Your task to perform on an android device: toggle notifications settings in the gmail app Image 0: 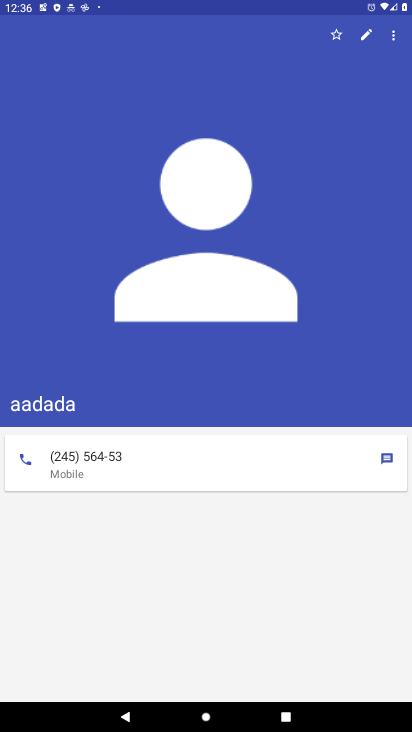
Step 0: press home button
Your task to perform on an android device: toggle notifications settings in the gmail app Image 1: 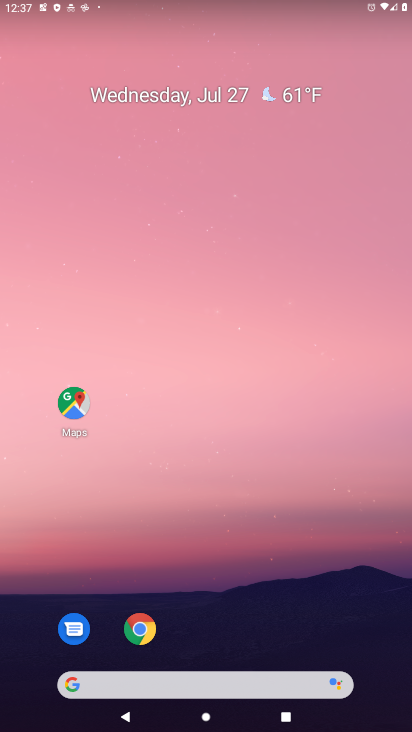
Step 1: drag from (206, 621) to (214, 212)
Your task to perform on an android device: toggle notifications settings in the gmail app Image 2: 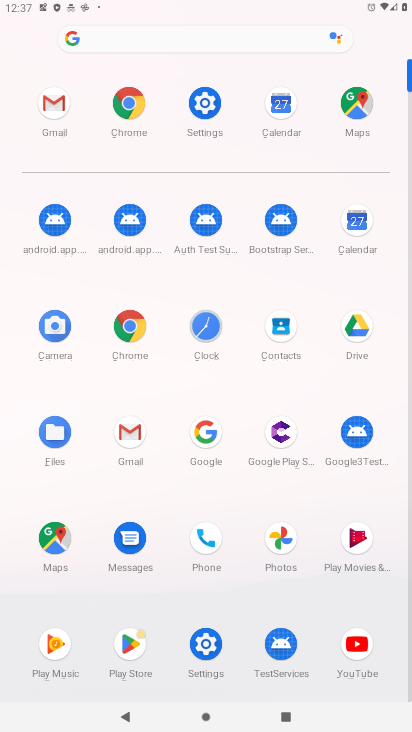
Step 2: click (52, 110)
Your task to perform on an android device: toggle notifications settings in the gmail app Image 3: 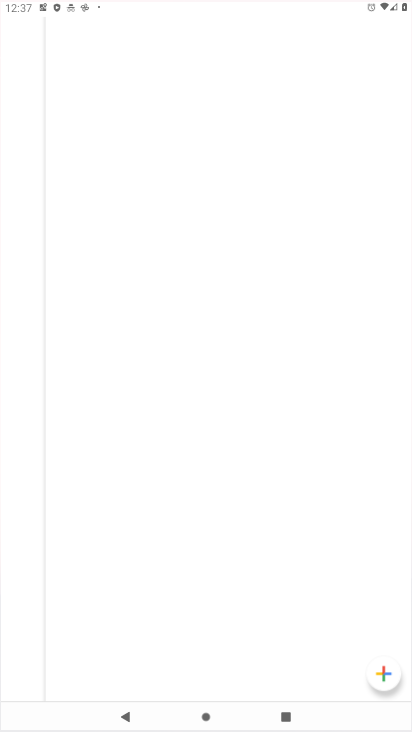
Step 3: task complete